Your task to perform on an android device: Open CNN.com Image 0: 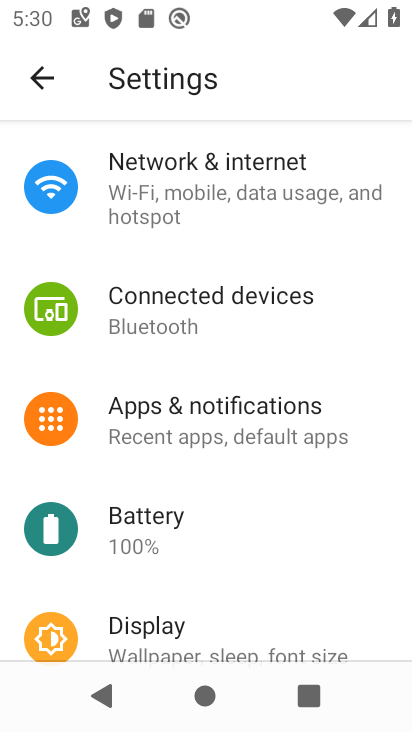
Step 0: press home button
Your task to perform on an android device: Open CNN.com Image 1: 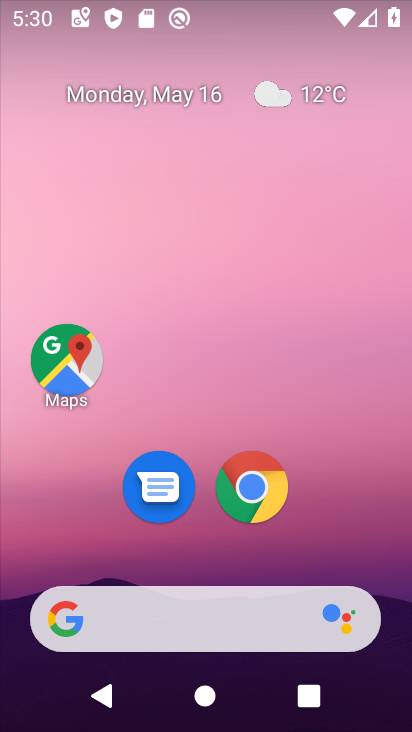
Step 1: click (258, 484)
Your task to perform on an android device: Open CNN.com Image 2: 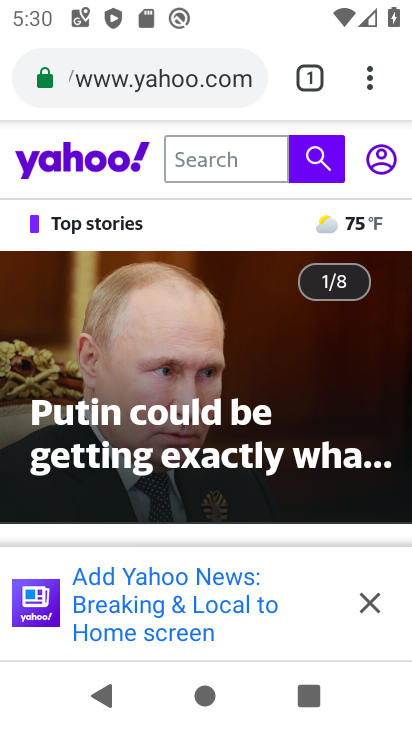
Step 2: click (216, 82)
Your task to perform on an android device: Open CNN.com Image 3: 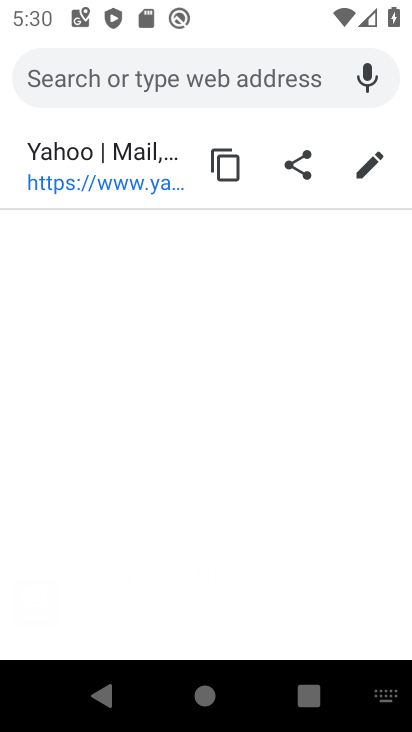
Step 3: type "cnn.com"
Your task to perform on an android device: Open CNN.com Image 4: 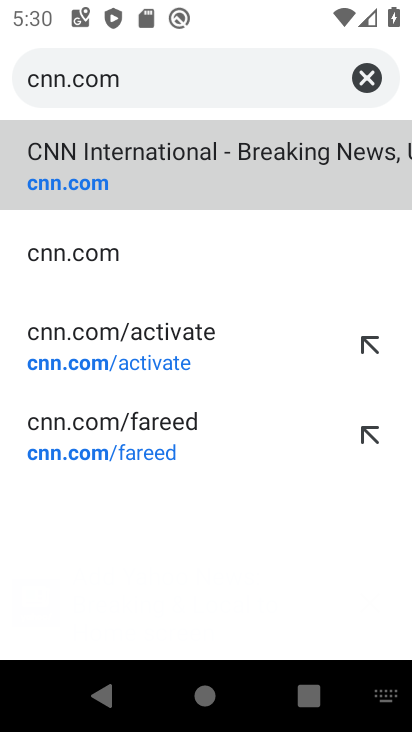
Step 4: click (71, 178)
Your task to perform on an android device: Open CNN.com Image 5: 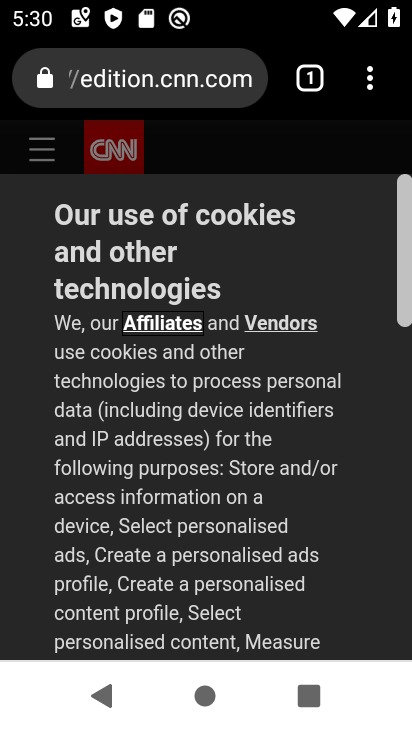
Step 5: task complete